Your task to perform on an android device: What's the weather? Image 0: 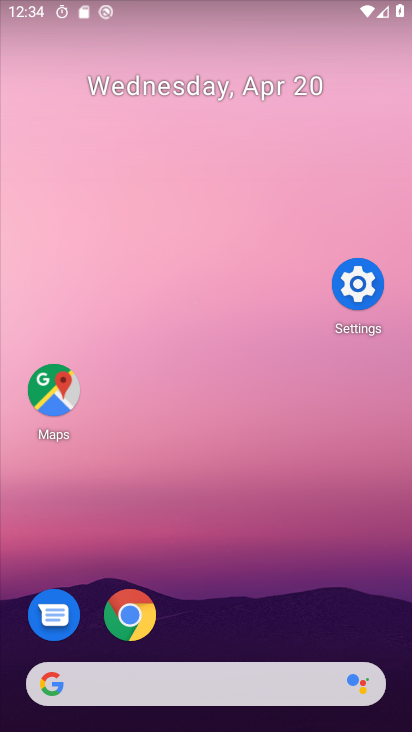
Step 0: drag from (201, 591) to (47, 11)
Your task to perform on an android device: What's the weather? Image 1: 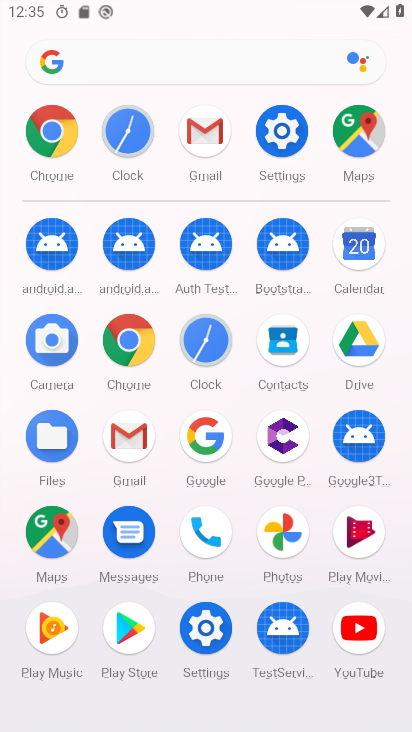
Step 1: click (121, 337)
Your task to perform on an android device: What's the weather? Image 2: 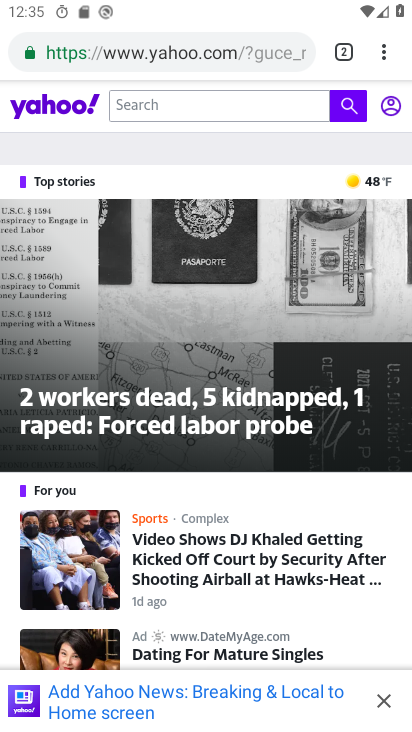
Step 2: click (191, 50)
Your task to perform on an android device: What's the weather? Image 3: 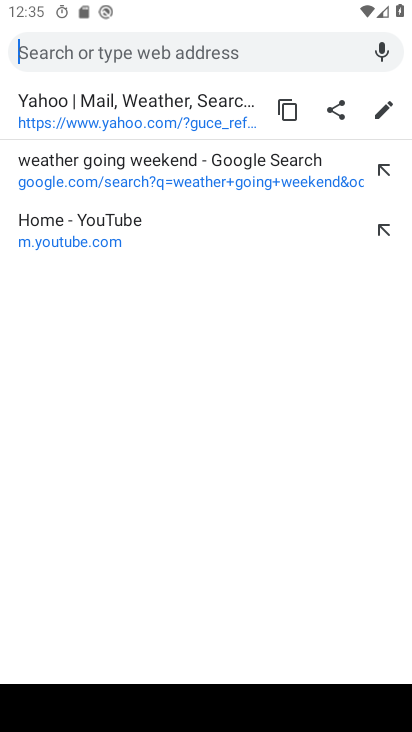
Step 3: type "weather"
Your task to perform on an android device: What's the weather? Image 4: 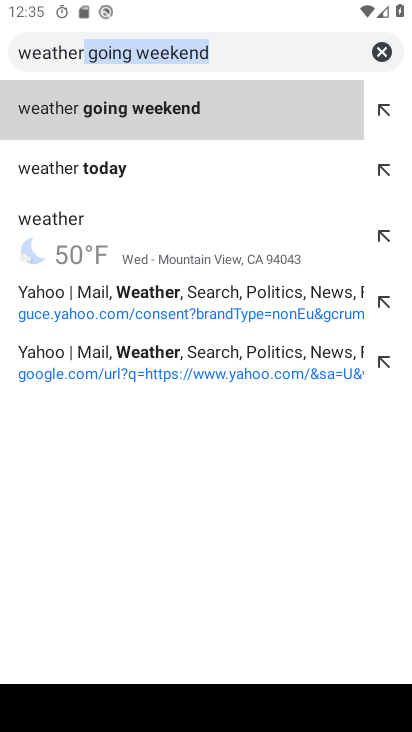
Step 4: click (96, 230)
Your task to perform on an android device: What's the weather? Image 5: 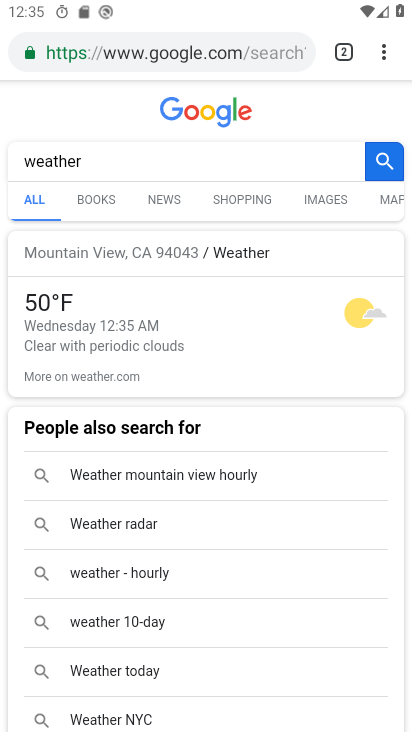
Step 5: task complete